Your task to perform on an android device: install app "Skype" Image 0: 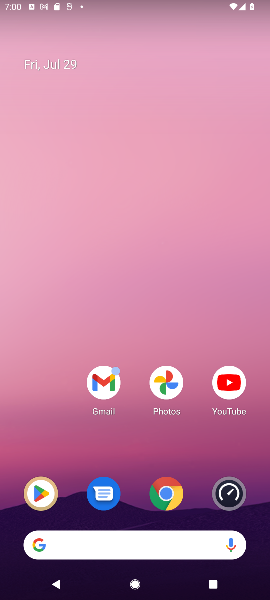
Step 0: drag from (156, 589) to (144, 61)
Your task to perform on an android device: install app "Skype" Image 1: 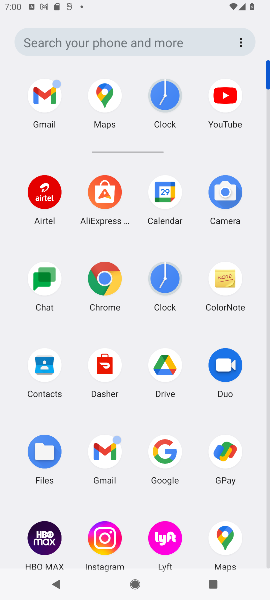
Step 1: click (142, 187)
Your task to perform on an android device: install app "Skype" Image 2: 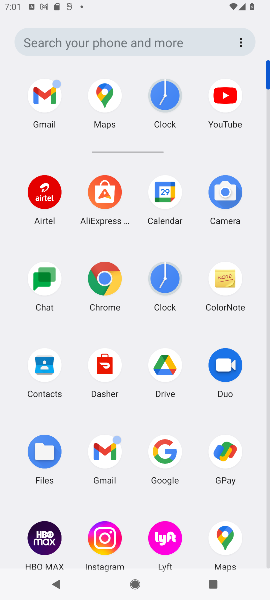
Step 2: drag from (130, 526) to (88, 137)
Your task to perform on an android device: install app "Skype" Image 3: 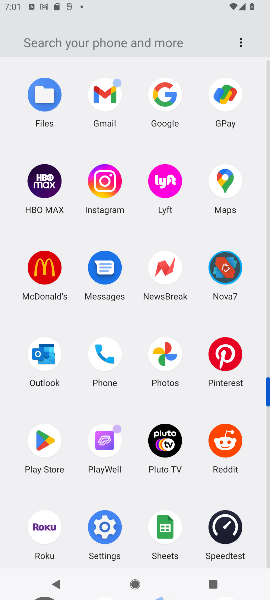
Step 3: click (37, 436)
Your task to perform on an android device: install app "Skype" Image 4: 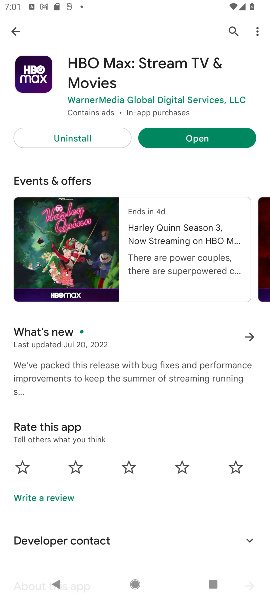
Step 4: click (232, 31)
Your task to perform on an android device: install app "Skype" Image 5: 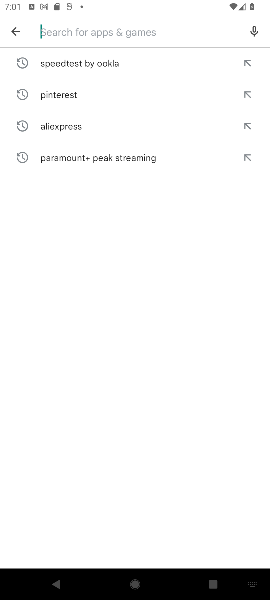
Step 5: type "Skype"
Your task to perform on an android device: install app "Skype" Image 6: 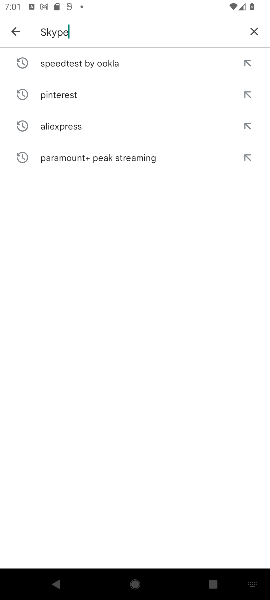
Step 6: type ""
Your task to perform on an android device: install app "Skype" Image 7: 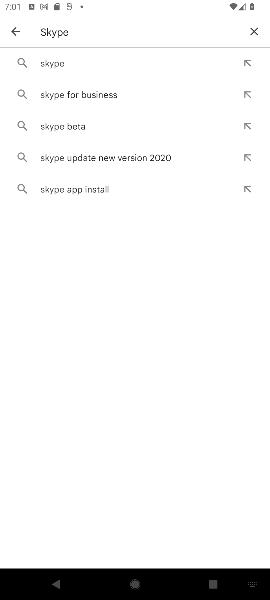
Step 7: click (52, 61)
Your task to perform on an android device: install app "Skype" Image 8: 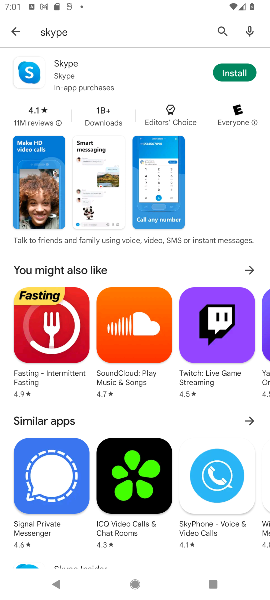
Step 8: click (236, 72)
Your task to perform on an android device: install app "Skype" Image 9: 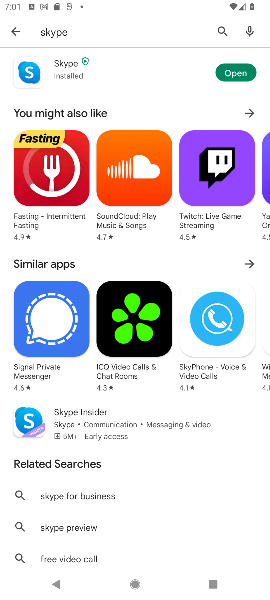
Step 9: task complete